Your task to perform on an android device: Turn off the flashlight Image 0: 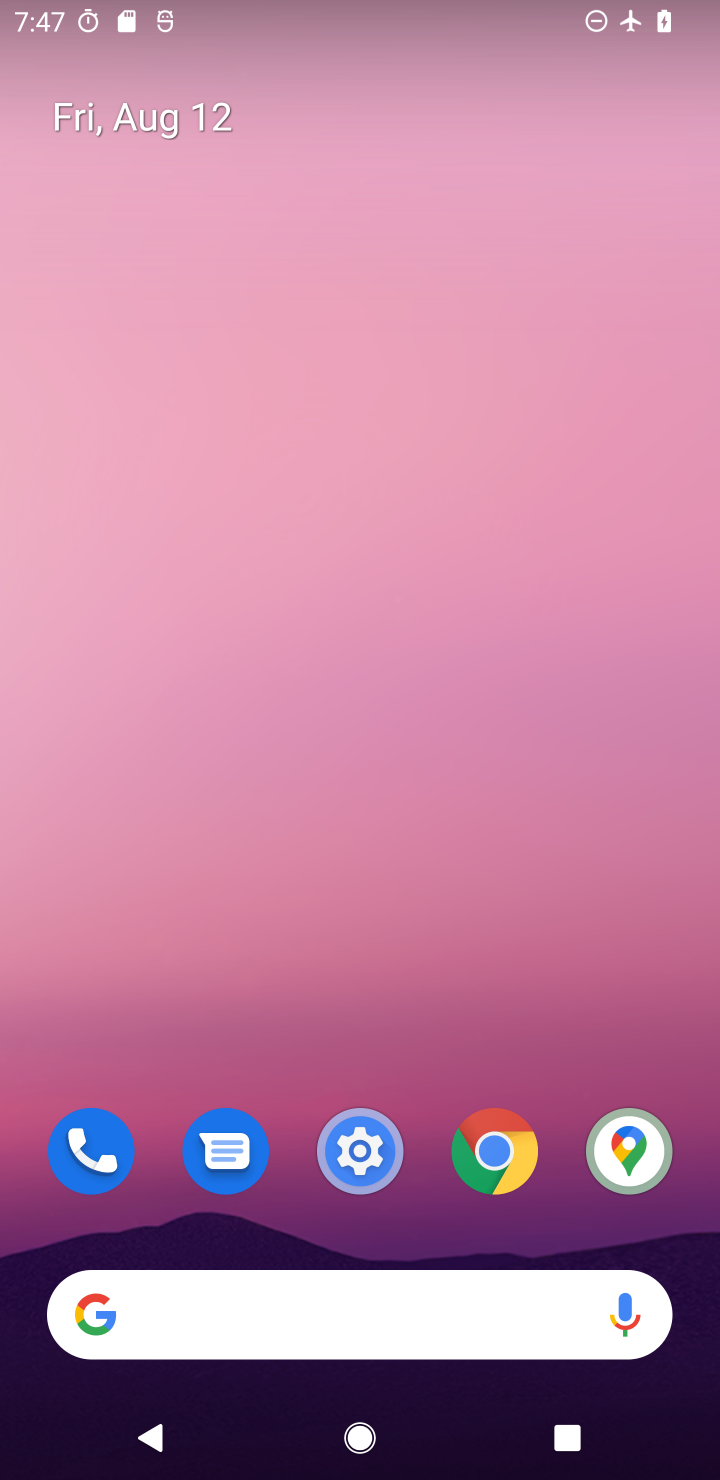
Step 0: drag from (434, 1056) to (497, 8)
Your task to perform on an android device: Turn off the flashlight Image 1: 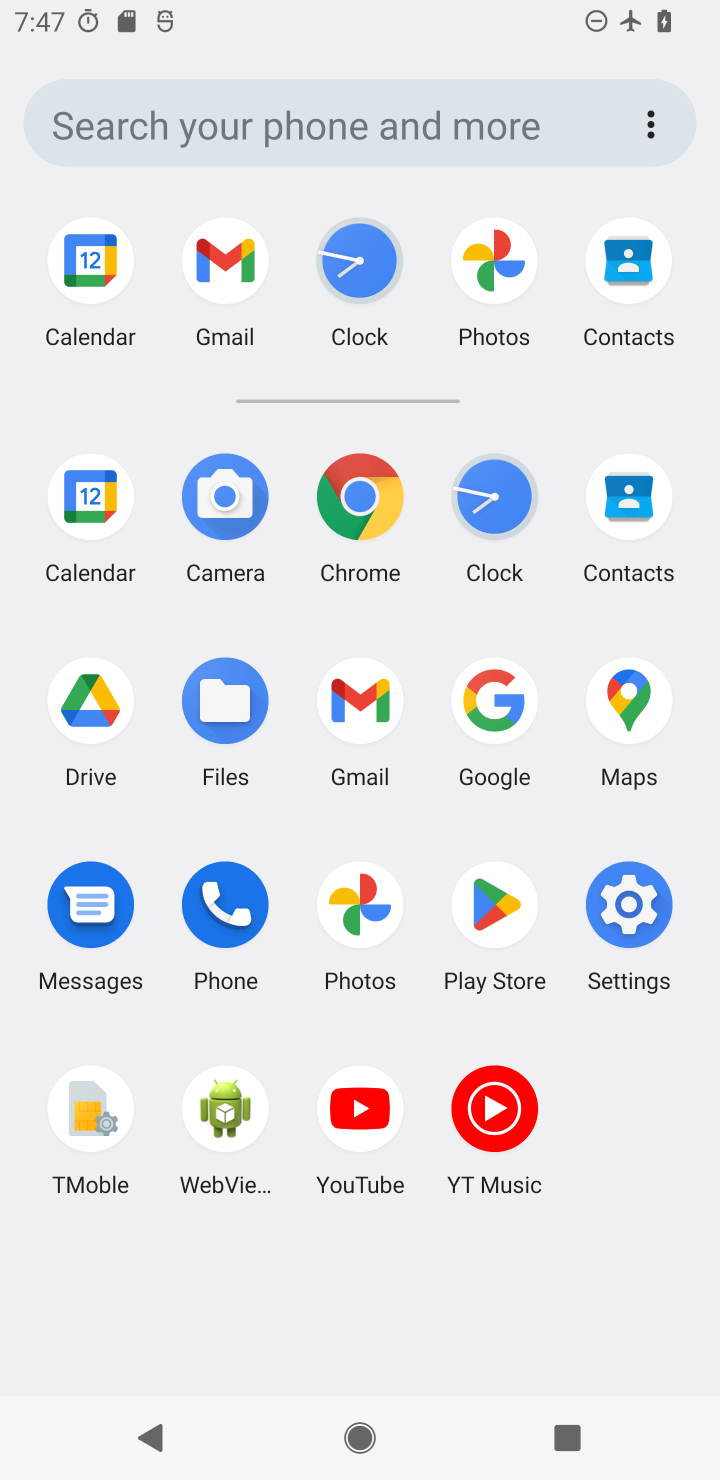
Step 1: click (640, 912)
Your task to perform on an android device: Turn off the flashlight Image 2: 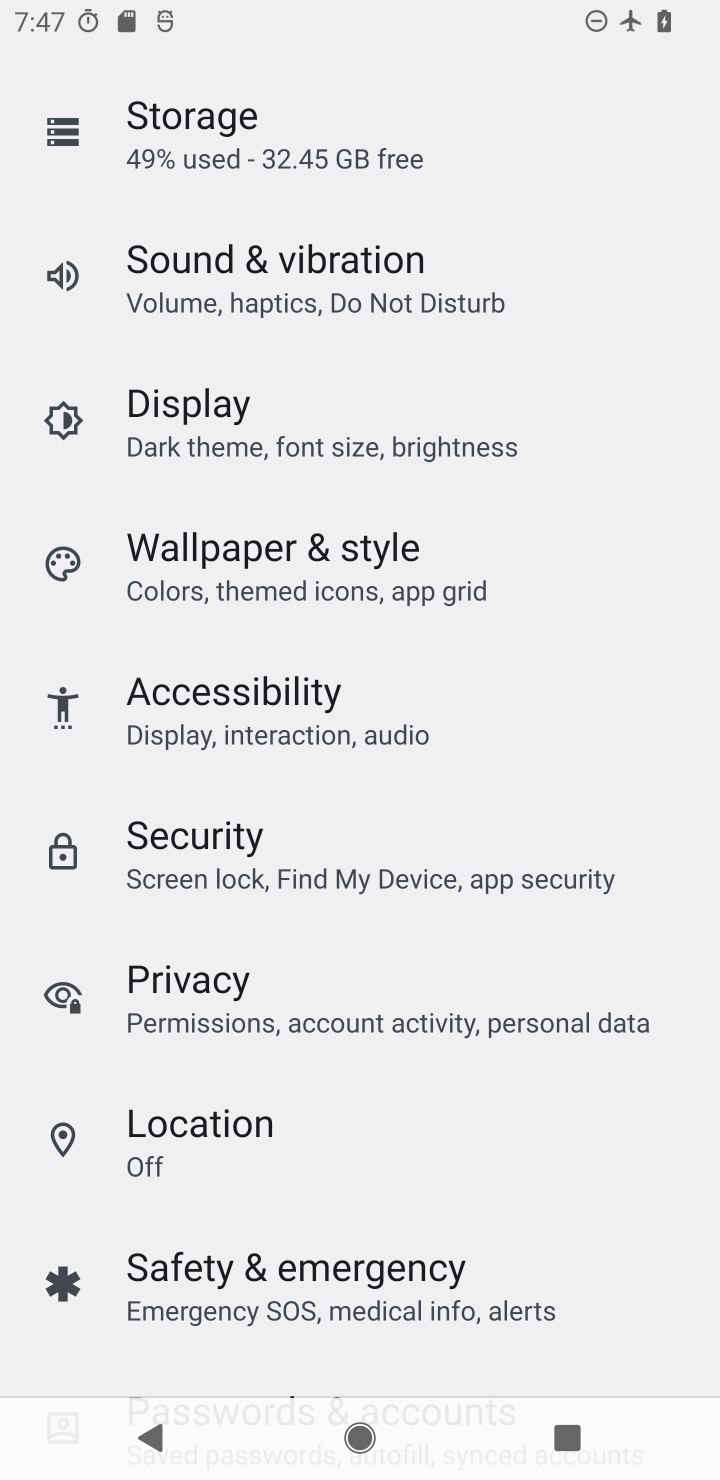
Step 2: click (288, 398)
Your task to perform on an android device: Turn off the flashlight Image 3: 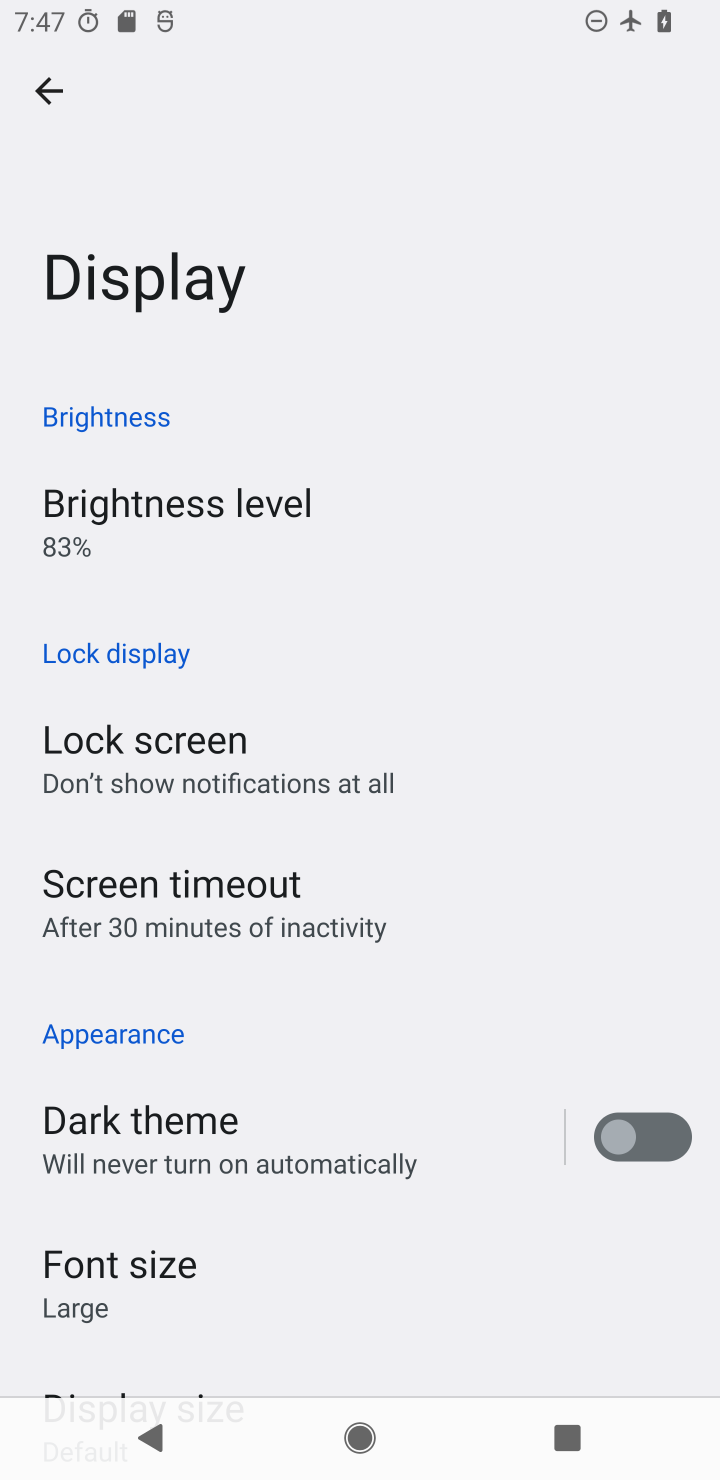
Step 3: task complete